Your task to perform on an android device: Search for Italian restaurants on Maps Image 0: 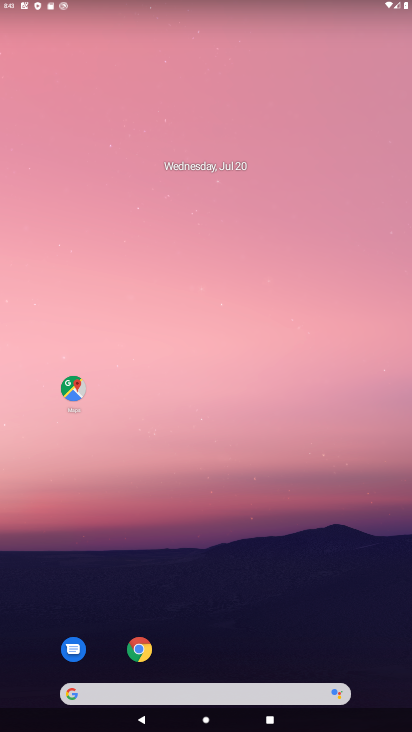
Step 0: drag from (295, 647) to (228, 79)
Your task to perform on an android device: Search for Italian restaurants on Maps Image 1: 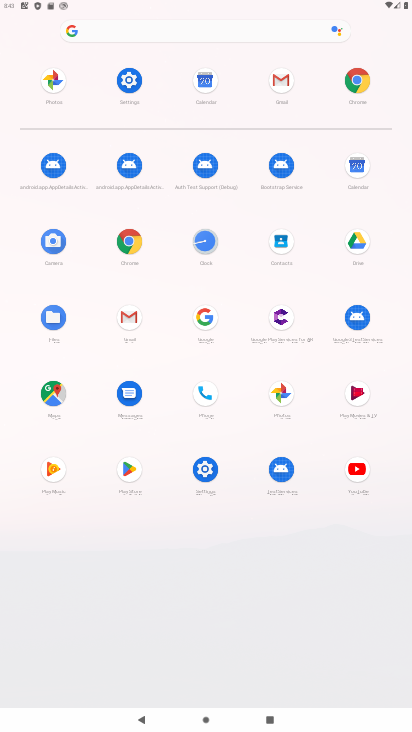
Step 1: click (57, 412)
Your task to perform on an android device: Search for Italian restaurants on Maps Image 2: 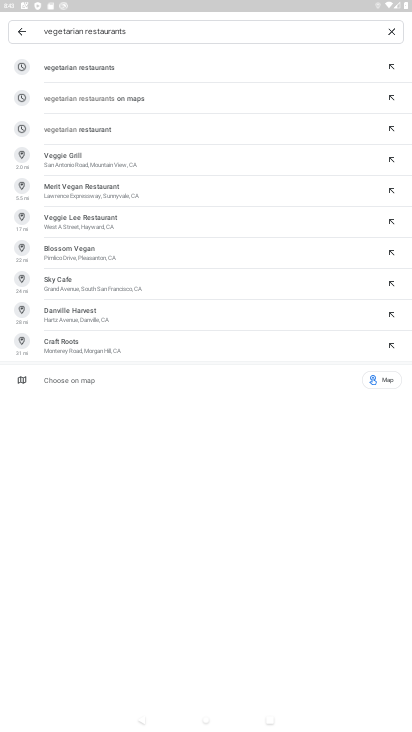
Step 2: task complete